Your task to perform on an android device: open app "Etsy: Buy & Sell Unique Items" Image 0: 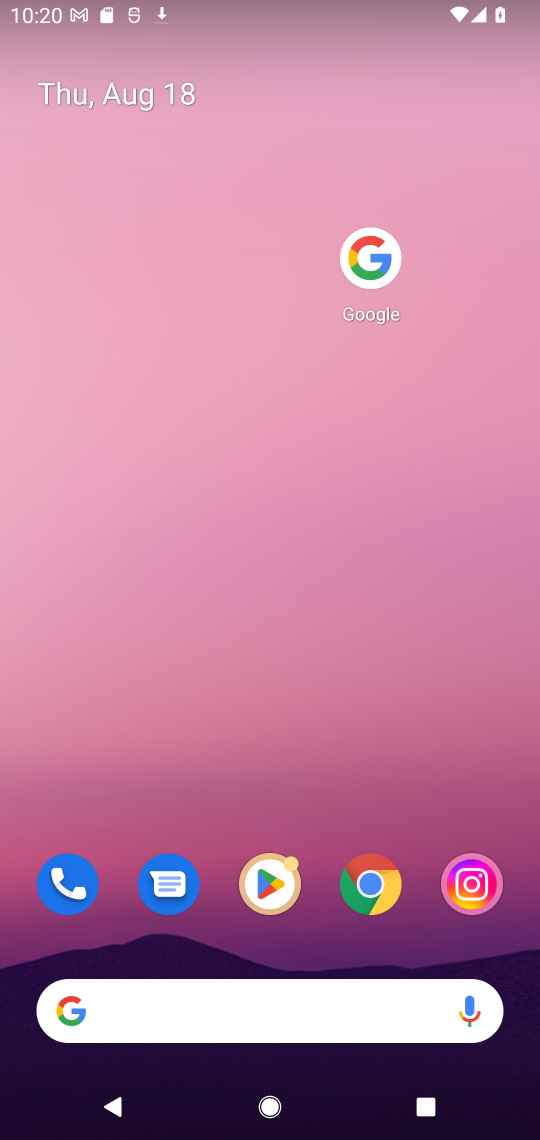
Step 0: click (262, 883)
Your task to perform on an android device: open app "Etsy: Buy & Sell Unique Items" Image 1: 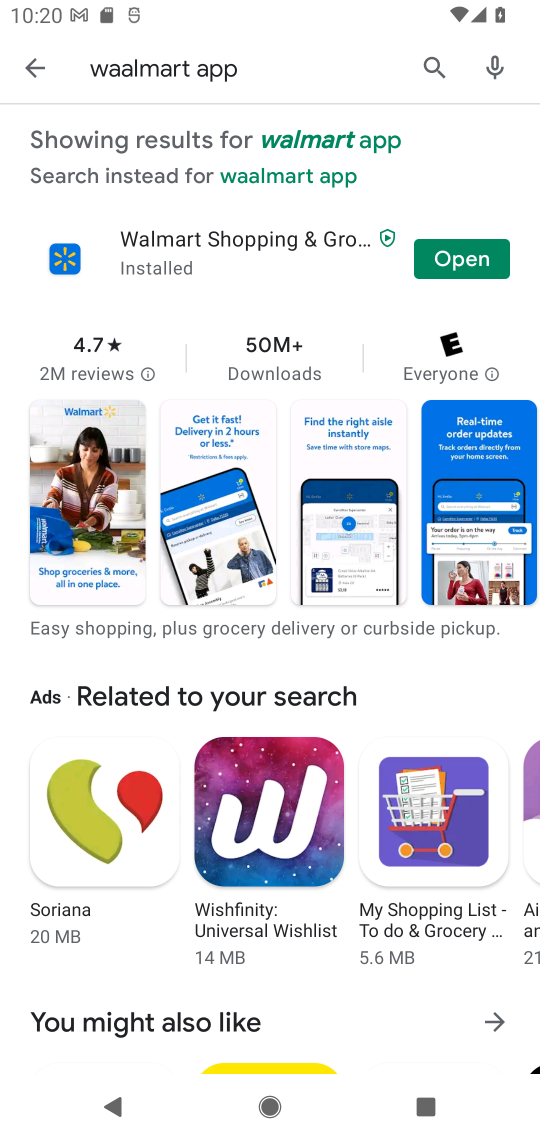
Step 1: click (437, 60)
Your task to perform on an android device: open app "Etsy: Buy & Sell Unique Items" Image 2: 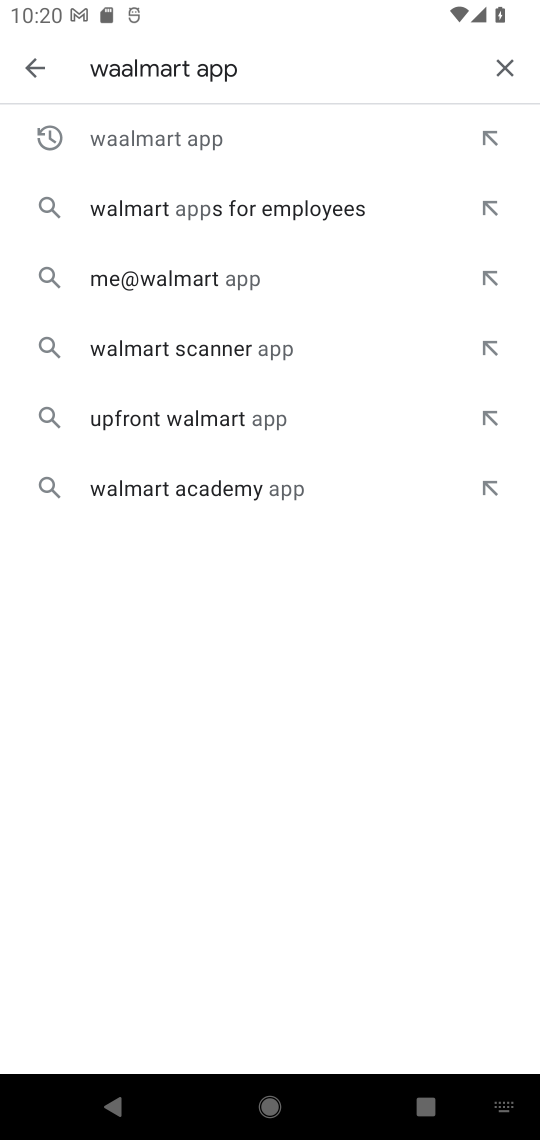
Step 2: click (505, 79)
Your task to perform on an android device: open app "Etsy: Buy & Sell Unique Items" Image 3: 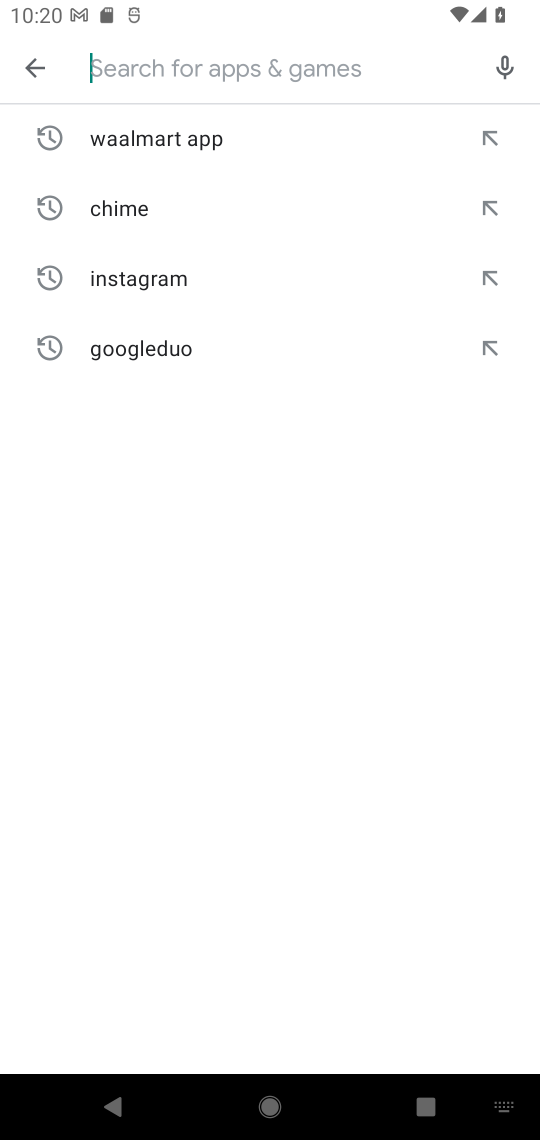
Step 3: type "etsy"
Your task to perform on an android device: open app "Etsy: Buy & Sell Unique Items" Image 4: 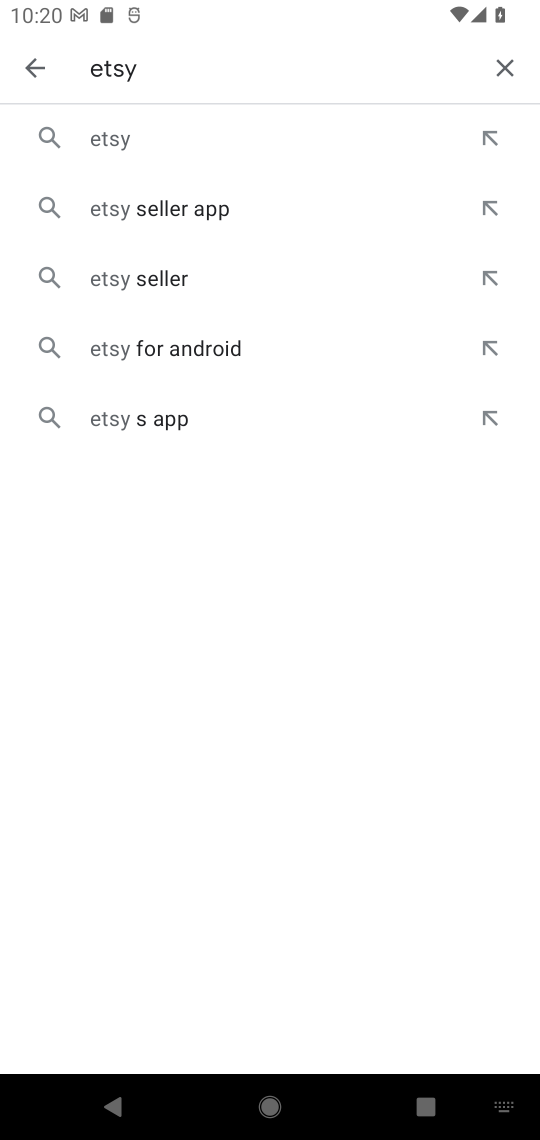
Step 4: click (215, 150)
Your task to perform on an android device: open app "Etsy: Buy & Sell Unique Items" Image 5: 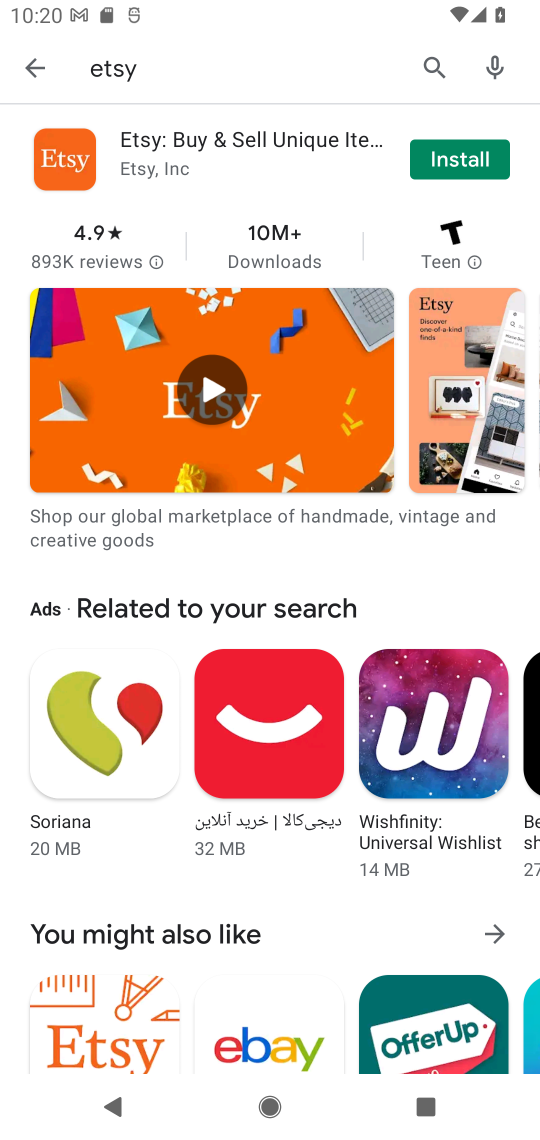
Step 5: click (476, 153)
Your task to perform on an android device: open app "Etsy: Buy & Sell Unique Items" Image 6: 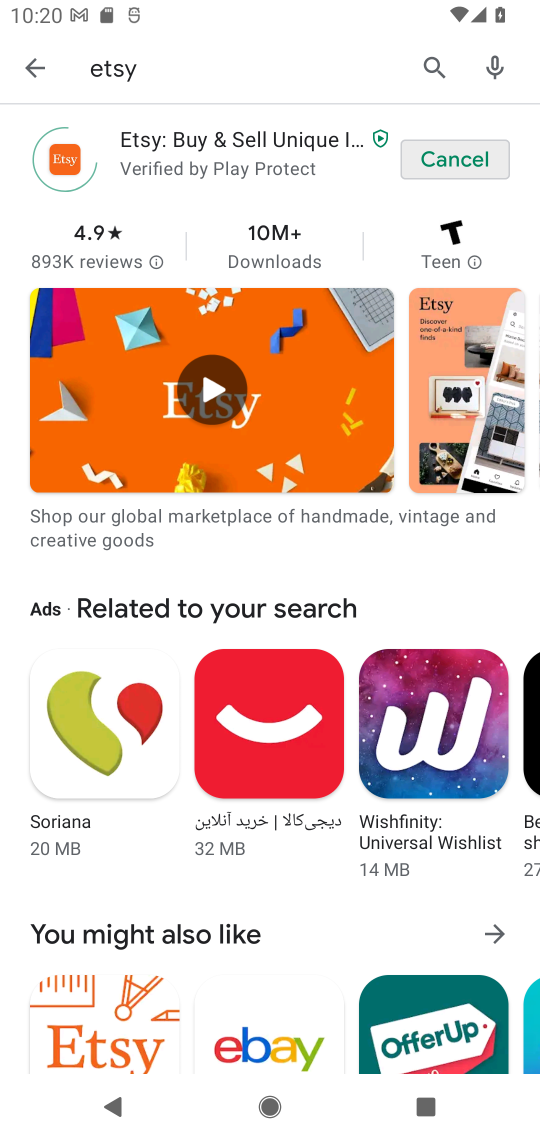
Step 6: task complete